Your task to perform on an android device: Open Chrome and go to settings Image 0: 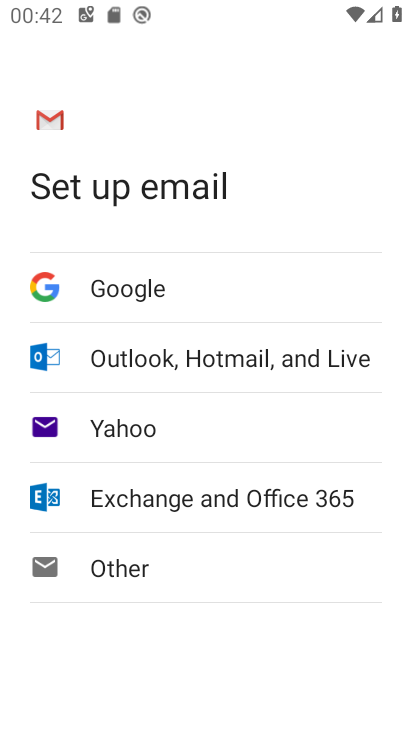
Step 0: press home button
Your task to perform on an android device: Open Chrome and go to settings Image 1: 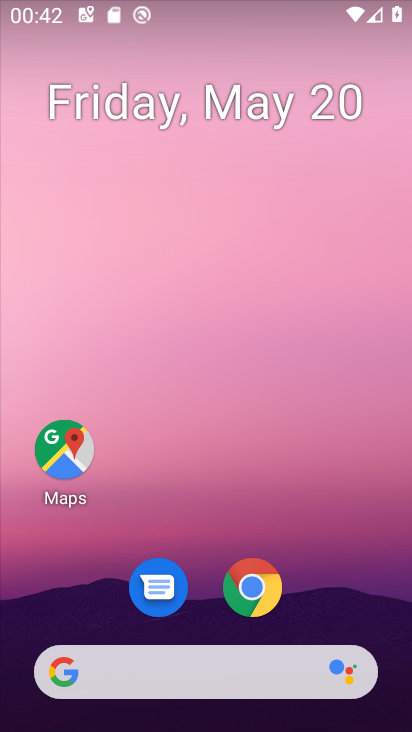
Step 1: drag from (369, 606) to (362, 223)
Your task to perform on an android device: Open Chrome and go to settings Image 2: 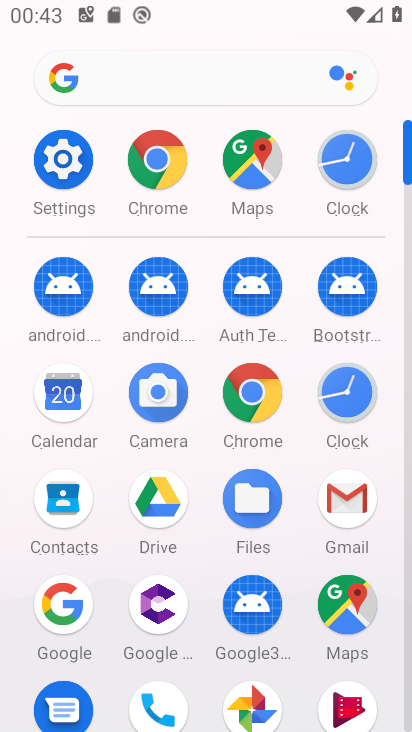
Step 2: click (240, 397)
Your task to perform on an android device: Open Chrome and go to settings Image 3: 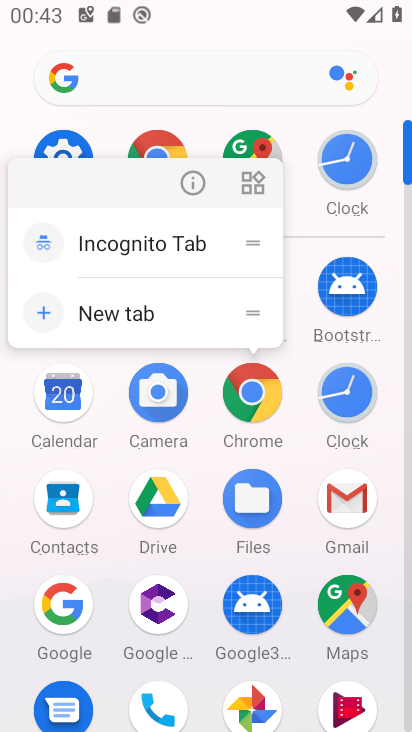
Step 3: click (240, 397)
Your task to perform on an android device: Open Chrome and go to settings Image 4: 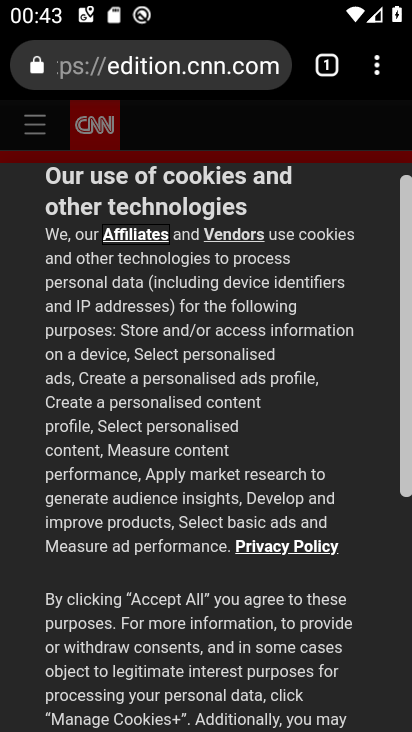
Step 4: click (374, 67)
Your task to perform on an android device: Open Chrome and go to settings Image 5: 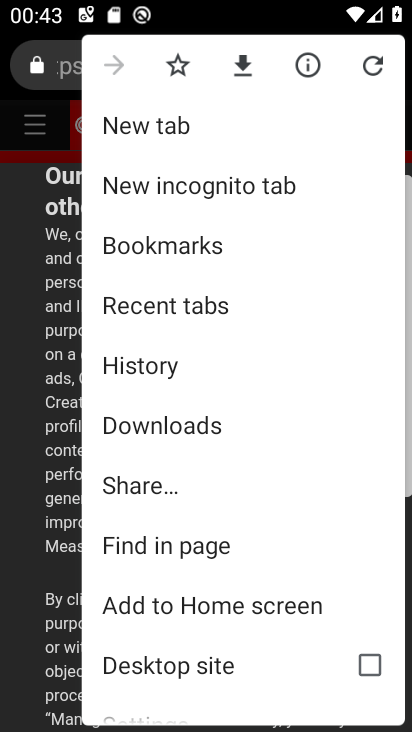
Step 5: drag from (330, 533) to (332, 381)
Your task to perform on an android device: Open Chrome and go to settings Image 6: 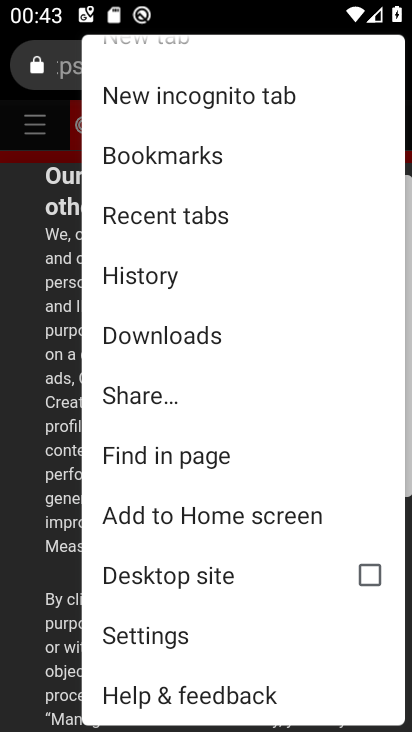
Step 6: click (157, 632)
Your task to perform on an android device: Open Chrome and go to settings Image 7: 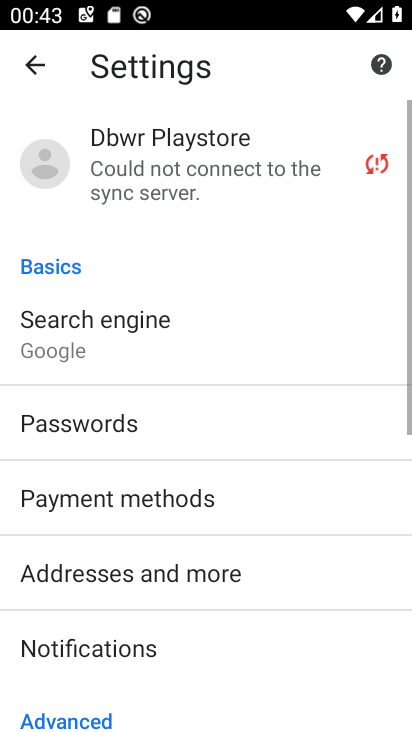
Step 7: task complete